Your task to perform on an android device: add a label to a message in the gmail app Image 0: 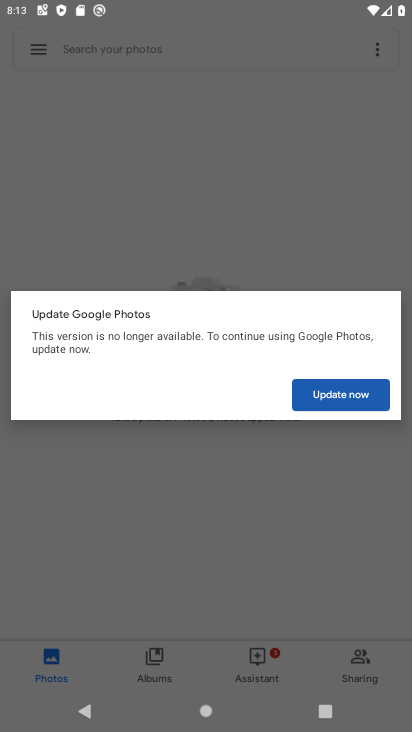
Step 0: press home button
Your task to perform on an android device: add a label to a message in the gmail app Image 1: 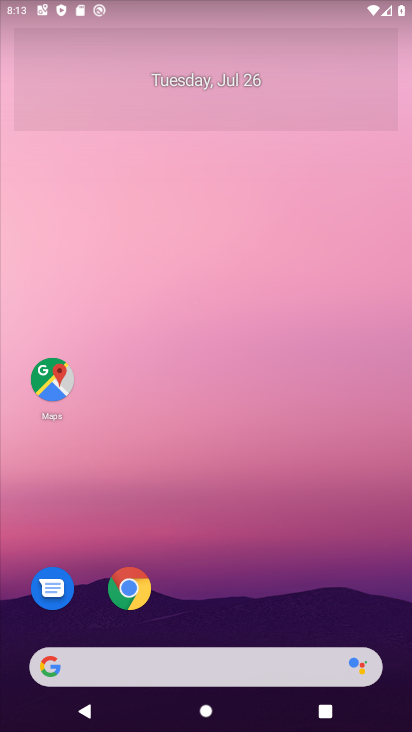
Step 1: drag from (259, 535) to (332, 69)
Your task to perform on an android device: add a label to a message in the gmail app Image 2: 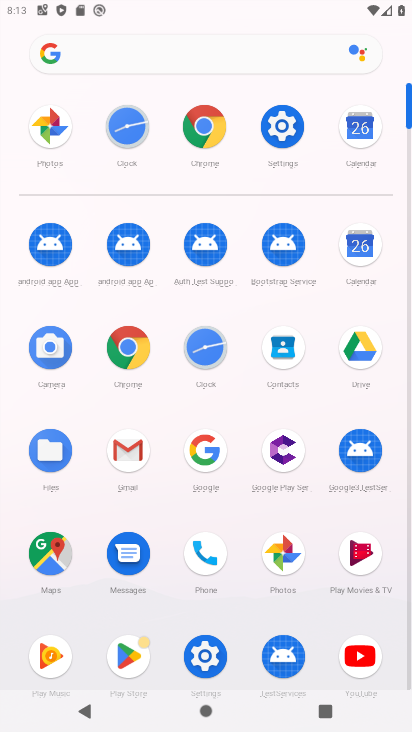
Step 2: click (127, 455)
Your task to perform on an android device: add a label to a message in the gmail app Image 3: 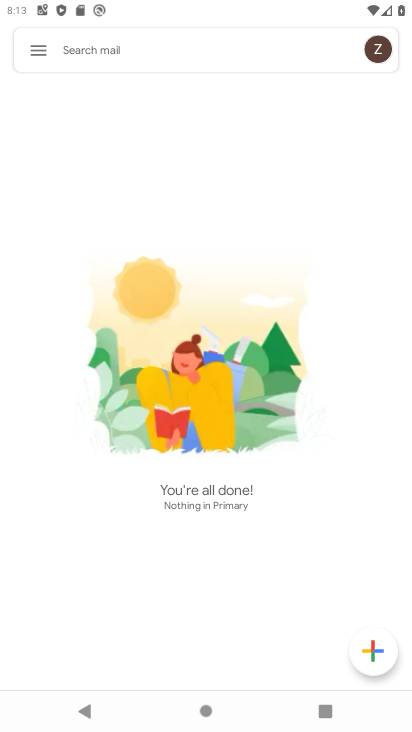
Step 3: click (34, 48)
Your task to perform on an android device: add a label to a message in the gmail app Image 4: 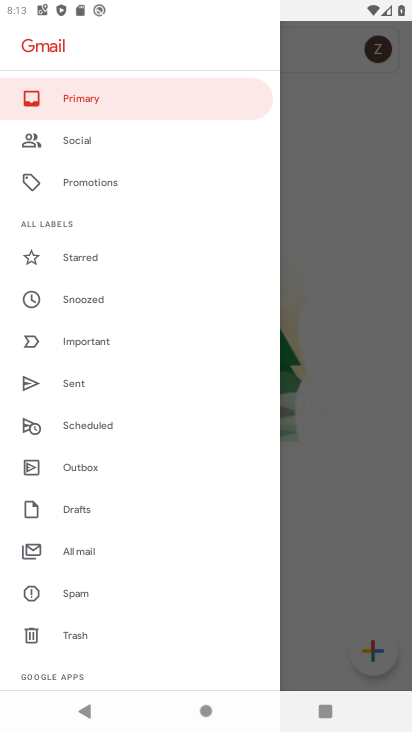
Step 4: task complete